Your task to perform on an android device: turn on data saver in the chrome app Image 0: 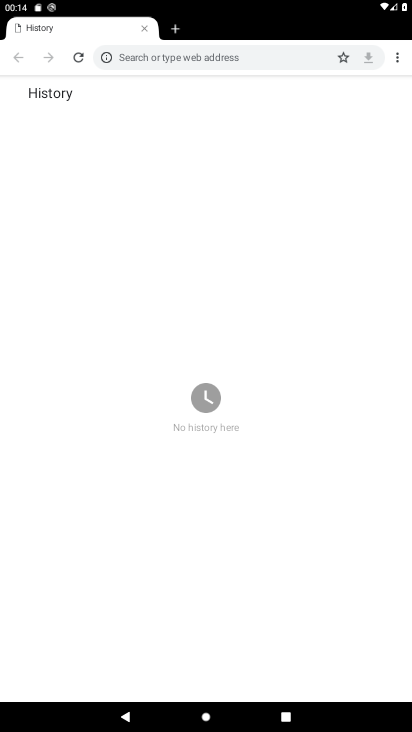
Step 0: press home button
Your task to perform on an android device: turn on data saver in the chrome app Image 1: 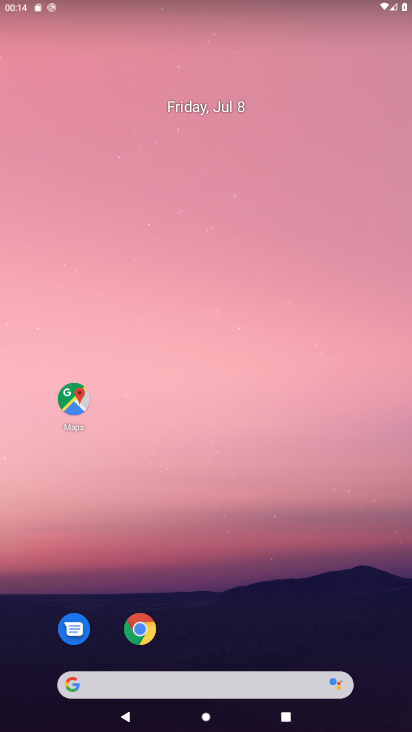
Step 1: click (138, 631)
Your task to perform on an android device: turn on data saver in the chrome app Image 2: 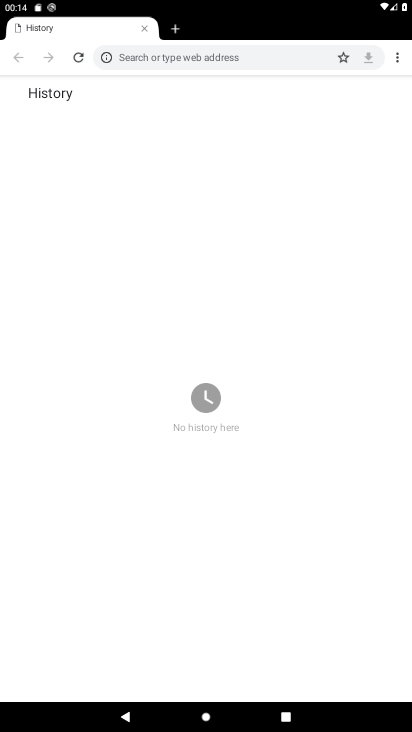
Step 2: click (397, 56)
Your task to perform on an android device: turn on data saver in the chrome app Image 3: 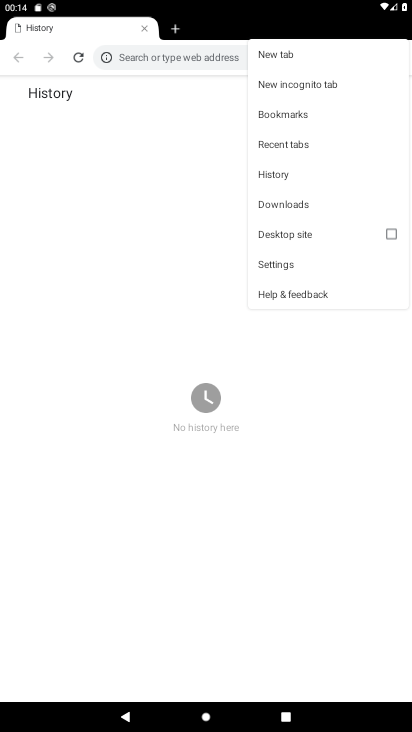
Step 3: click (289, 263)
Your task to perform on an android device: turn on data saver in the chrome app Image 4: 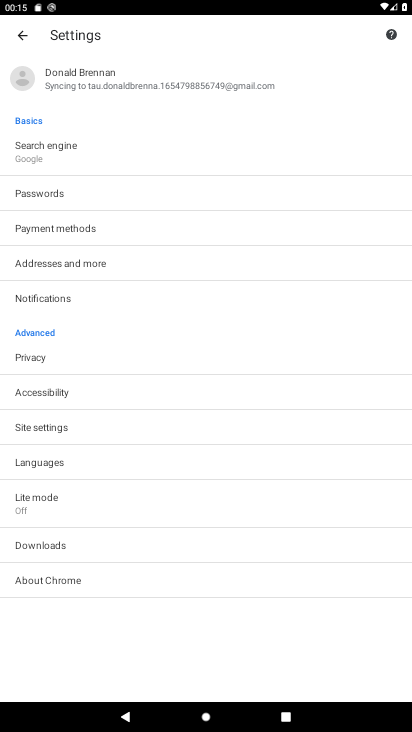
Step 4: click (53, 498)
Your task to perform on an android device: turn on data saver in the chrome app Image 5: 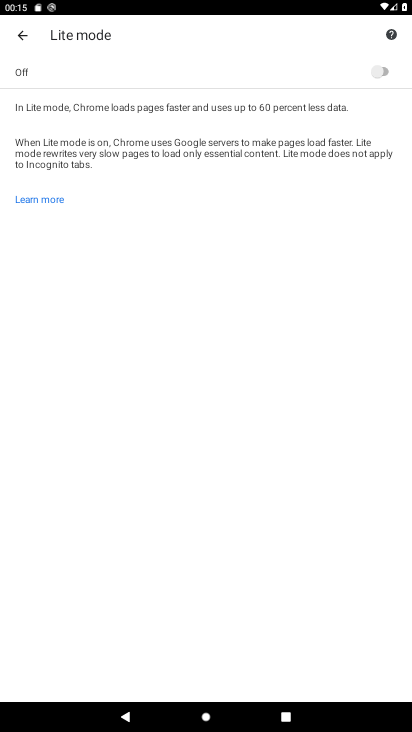
Step 5: click (384, 74)
Your task to perform on an android device: turn on data saver in the chrome app Image 6: 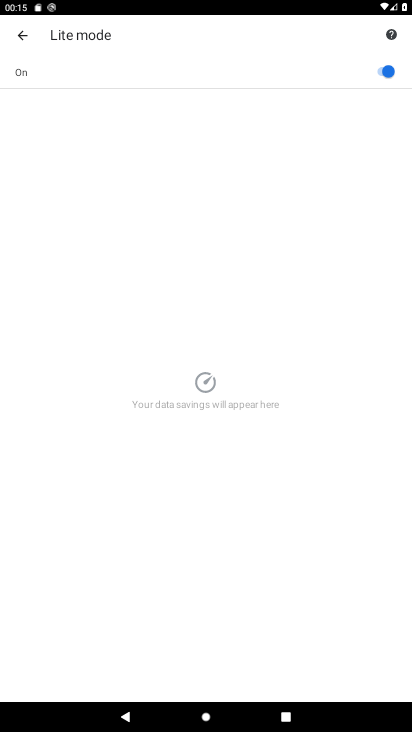
Step 6: task complete